Your task to perform on an android device: Add "logitech g pro" to the cart on walmart.com, then select checkout. Image 0: 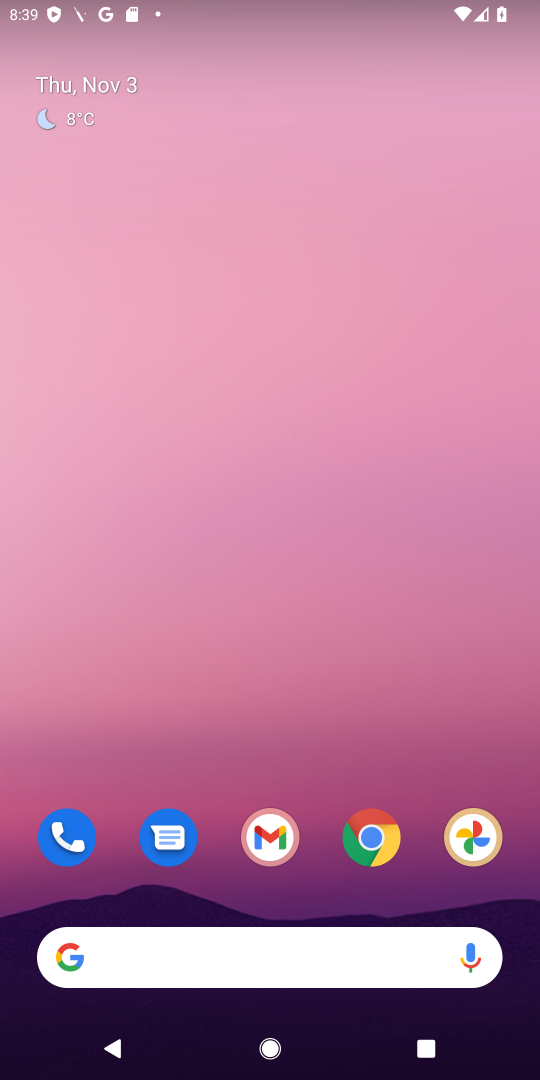
Step 0: click (374, 847)
Your task to perform on an android device: Add "logitech g pro" to the cart on walmart.com, then select checkout. Image 1: 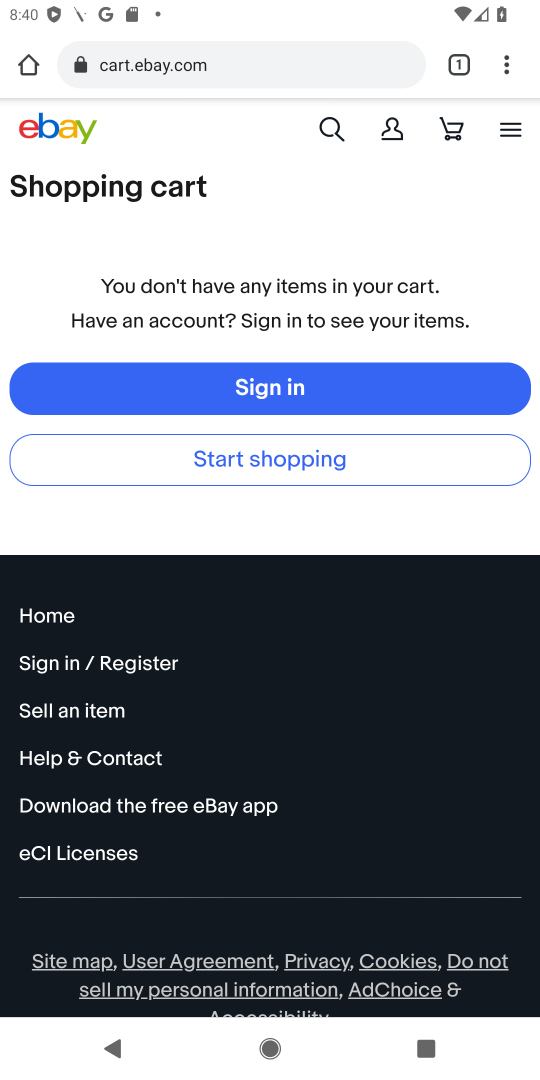
Step 1: click (269, 55)
Your task to perform on an android device: Add "logitech g pro" to the cart on walmart.com, then select checkout. Image 2: 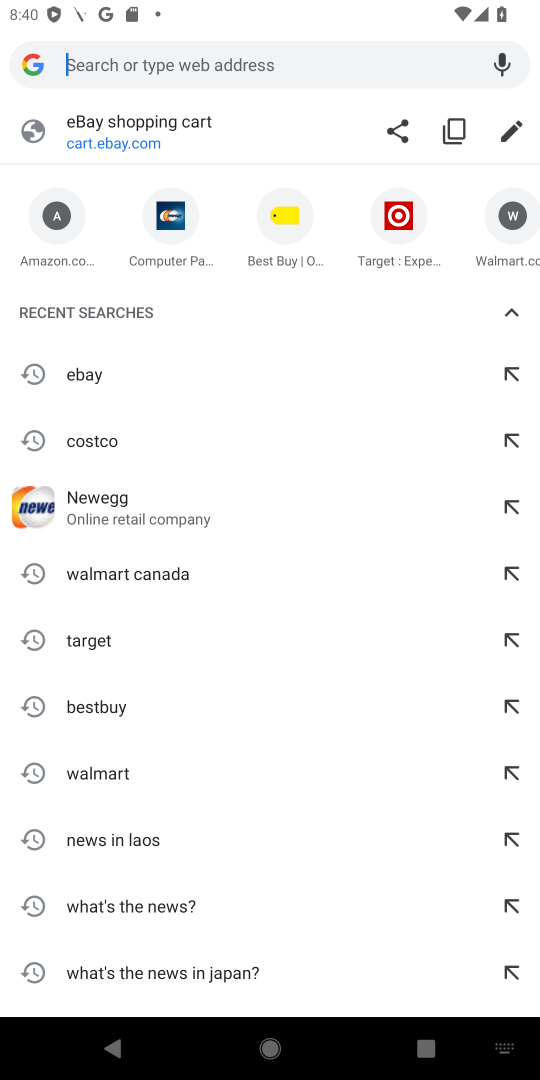
Step 2: press enter
Your task to perform on an android device: Add "logitech g pro" to the cart on walmart.com, then select checkout. Image 3: 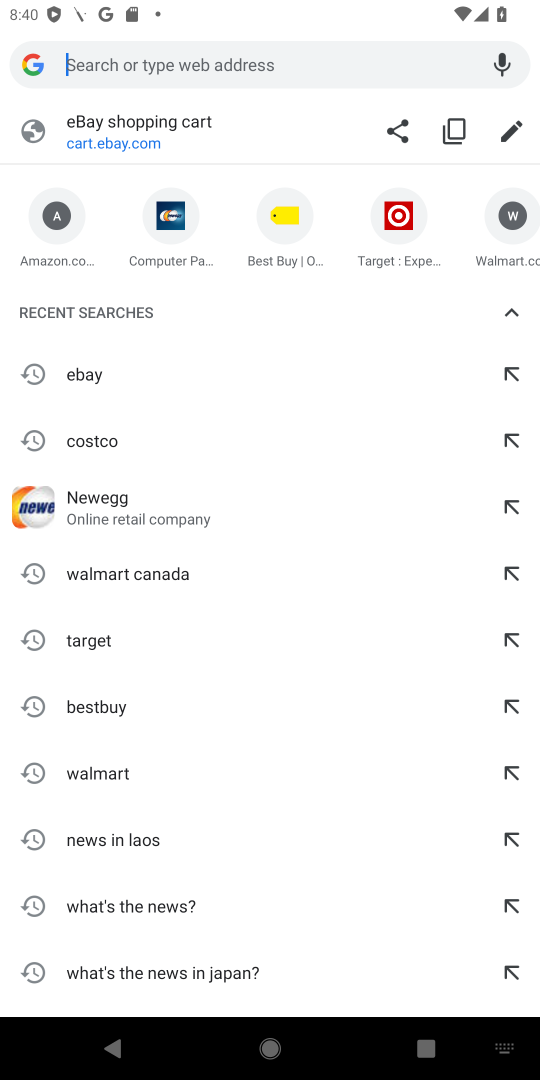
Step 3: type "walmart.com"
Your task to perform on an android device: Add "logitech g pro" to the cart on walmart.com, then select checkout. Image 4: 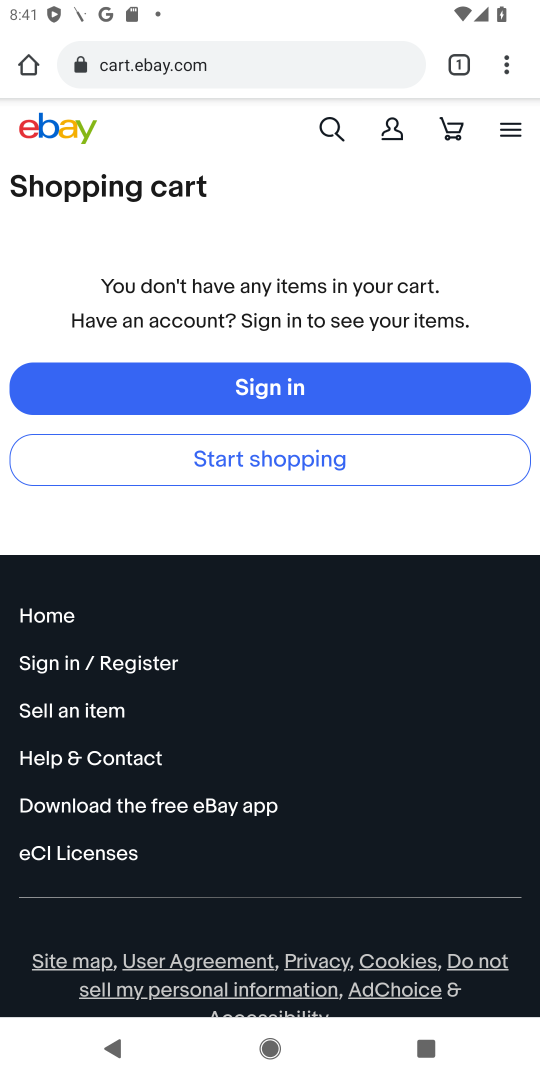
Step 4: click (299, 51)
Your task to perform on an android device: Add "logitech g pro" to the cart on walmart.com, then select checkout. Image 5: 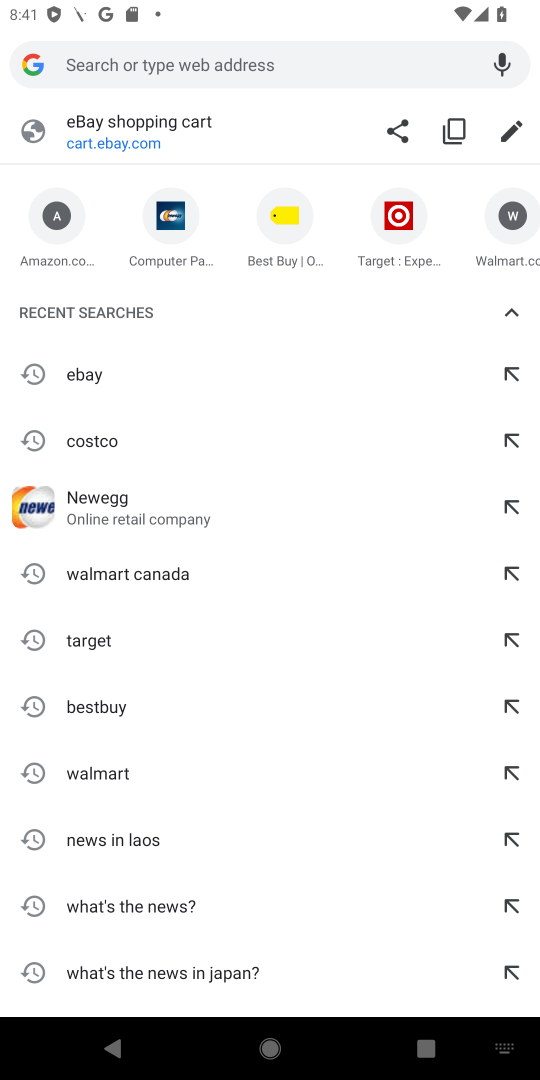
Step 5: type "walmart.com"
Your task to perform on an android device: Add "logitech g pro" to the cart on walmart.com, then select checkout. Image 6: 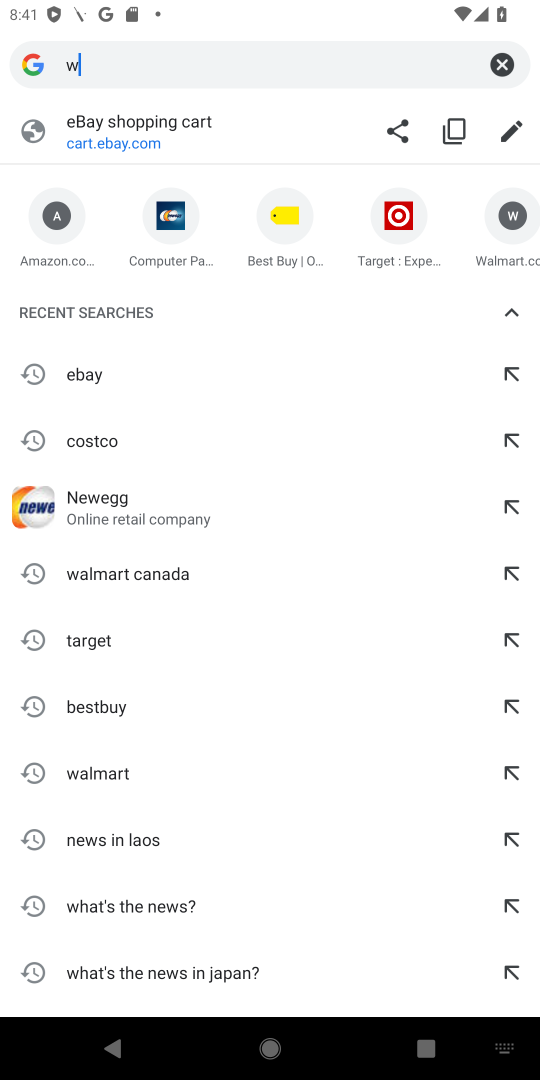
Step 6: press enter
Your task to perform on an android device: Add "logitech g pro" to the cart on walmart.com, then select checkout. Image 7: 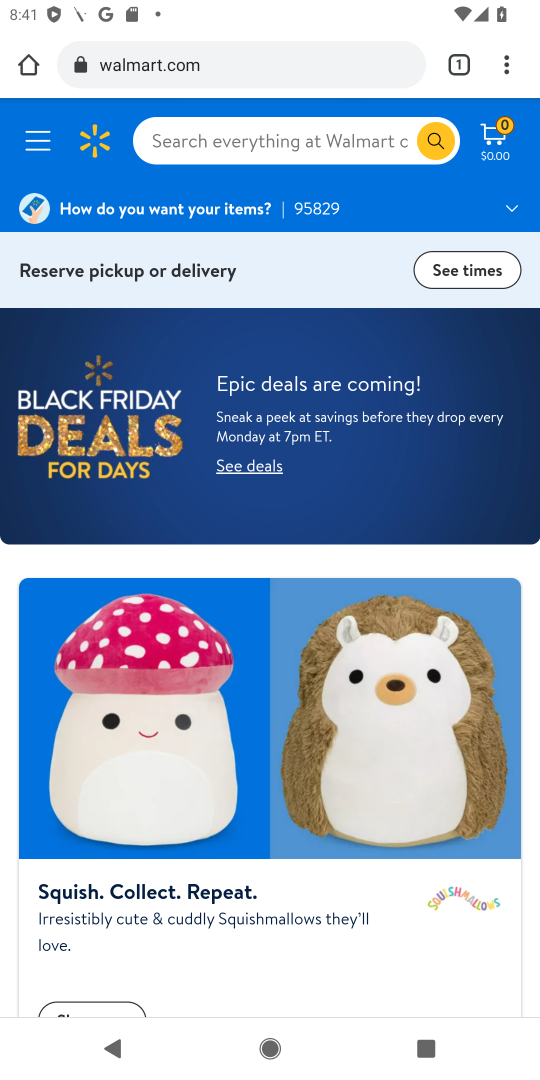
Step 7: click (261, 145)
Your task to perform on an android device: Add "logitech g pro" to the cart on walmart.com, then select checkout. Image 8: 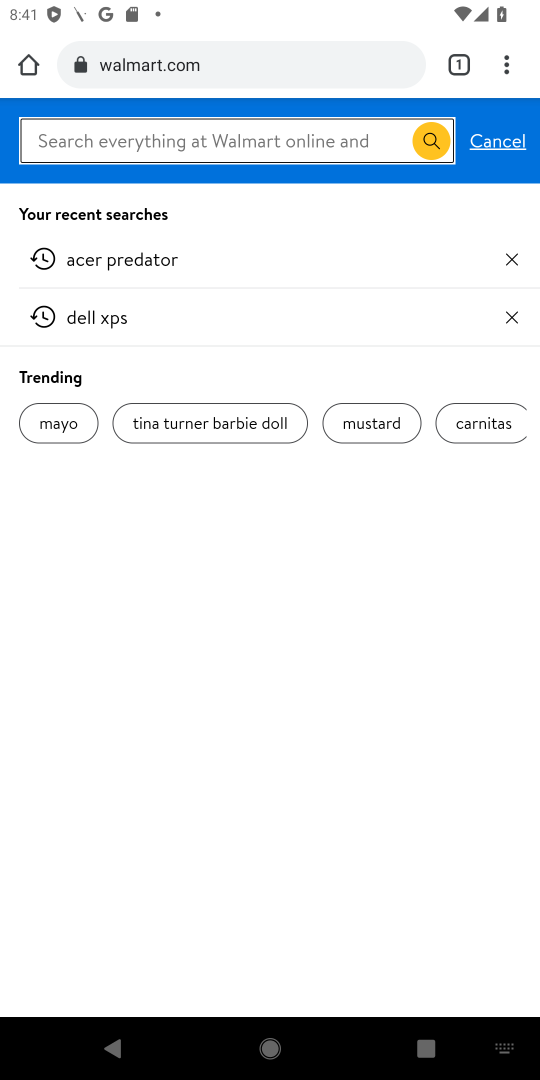
Step 8: type "logitech g pro"
Your task to perform on an android device: Add "logitech g pro" to the cart on walmart.com, then select checkout. Image 9: 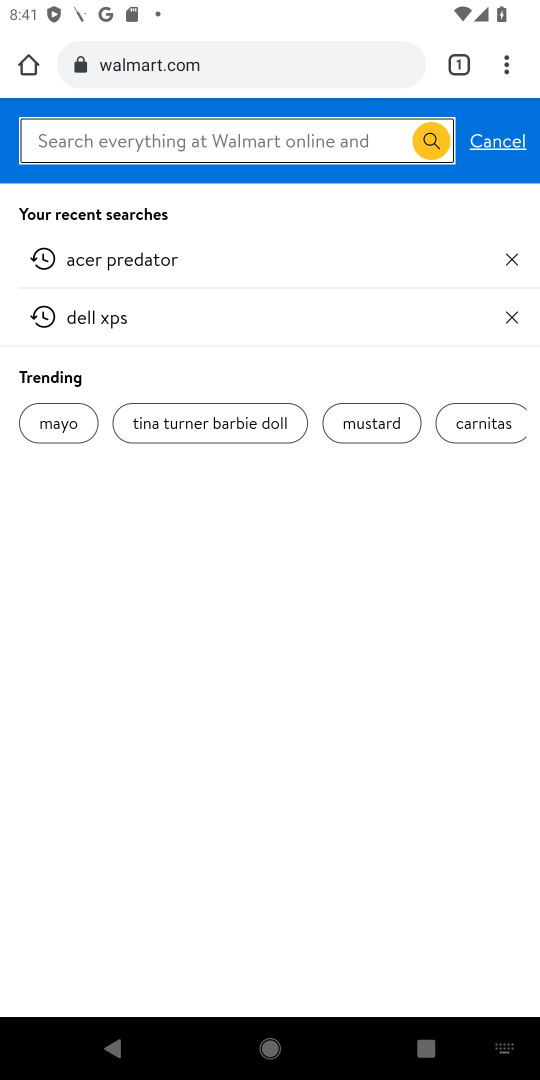
Step 9: press enter
Your task to perform on an android device: Add "logitech g pro" to the cart on walmart.com, then select checkout. Image 10: 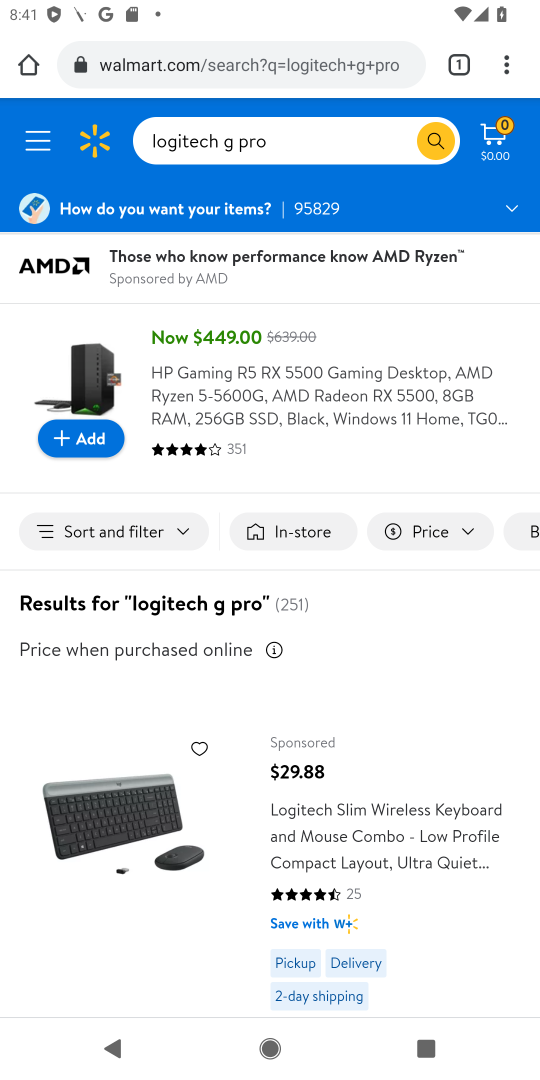
Step 10: task complete